Your task to perform on an android device: Open Youtube and go to the subscriptions tab Image 0: 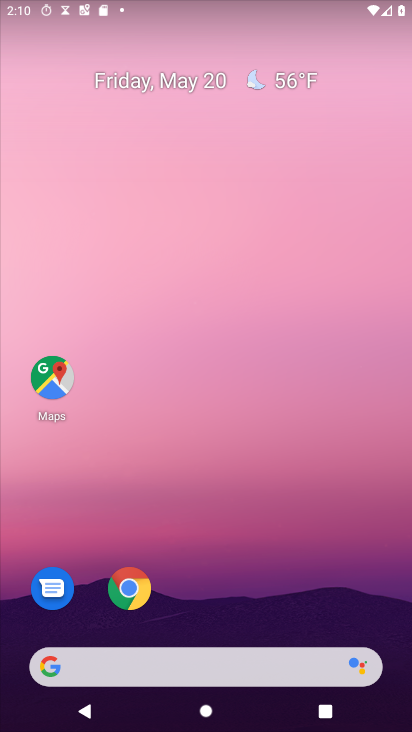
Step 0: drag from (77, 486) to (259, 177)
Your task to perform on an android device: Open Youtube and go to the subscriptions tab Image 1: 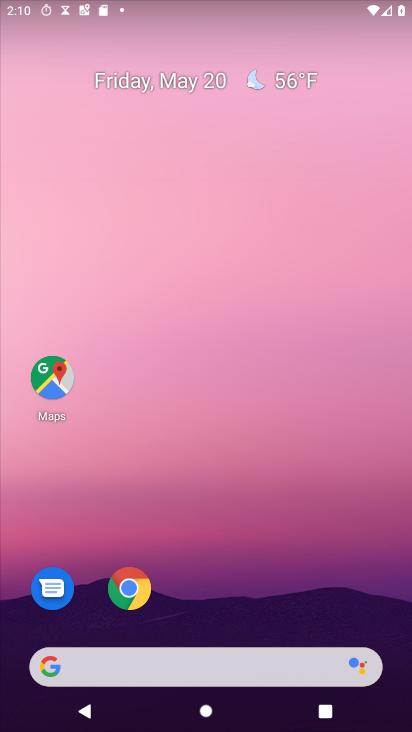
Step 1: drag from (106, 499) to (282, 185)
Your task to perform on an android device: Open Youtube and go to the subscriptions tab Image 2: 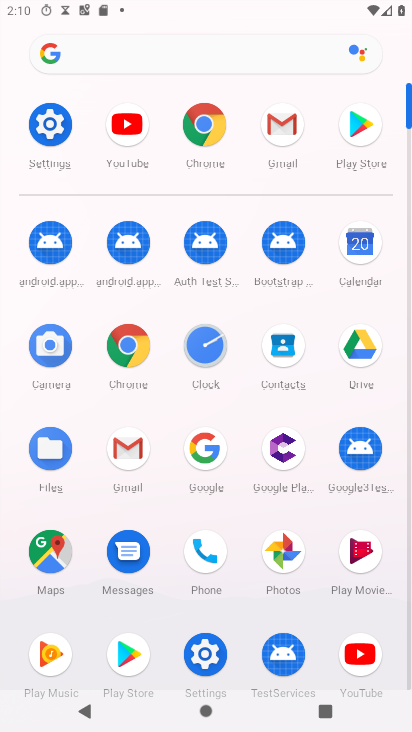
Step 2: click (98, 127)
Your task to perform on an android device: Open Youtube and go to the subscriptions tab Image 3: 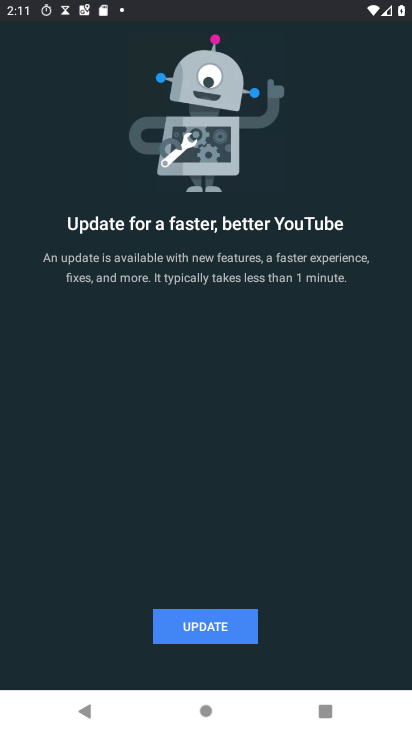
Step 3: task complete